Your task to perform on an android device: Turn off the flashlight Image 0: 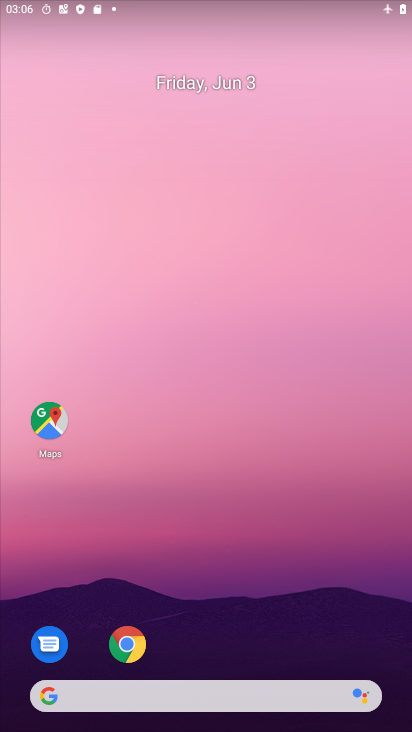
Step 0: drag from (203, 661) to (224, 330)
Your task to perform on an android device: Turn off the flashlight Image 1: 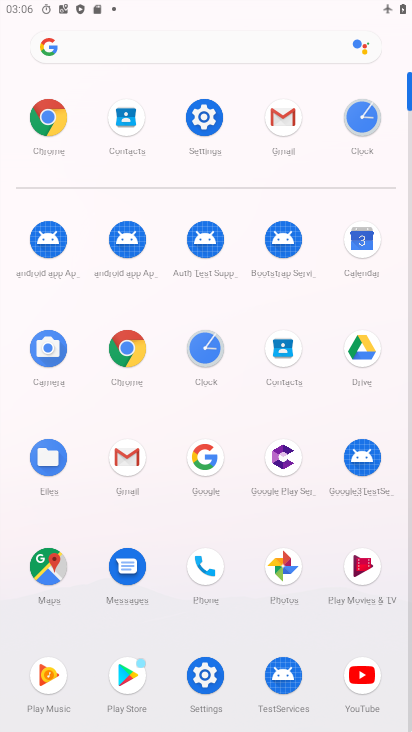
Step 1: click (221, 108)
Your task to perform on an android device: Turn off the flashlight Image 2: 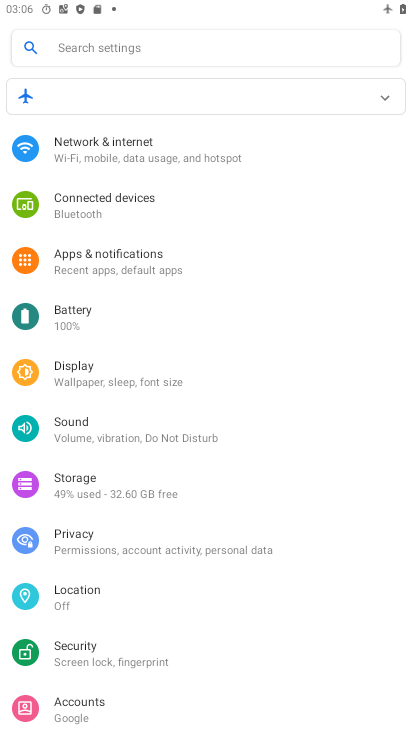
Step 2: task complete